Your task to perform on an android device: change alarm snooze length Image 0: 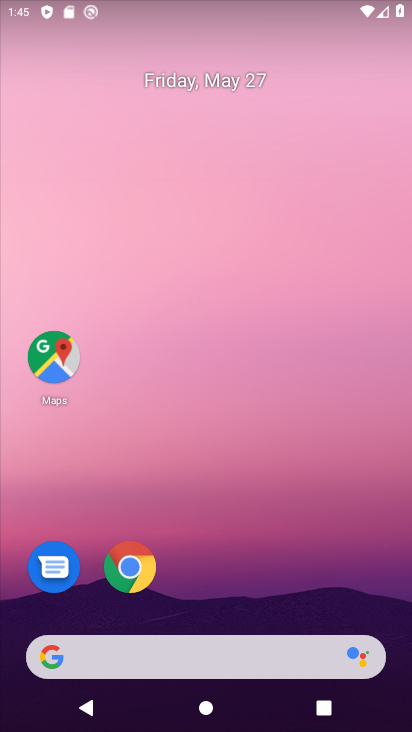
Step 0: drag from (226, 607) to (193, 92)
Your task to perform on an android device: change alarm snooze length Image 1: 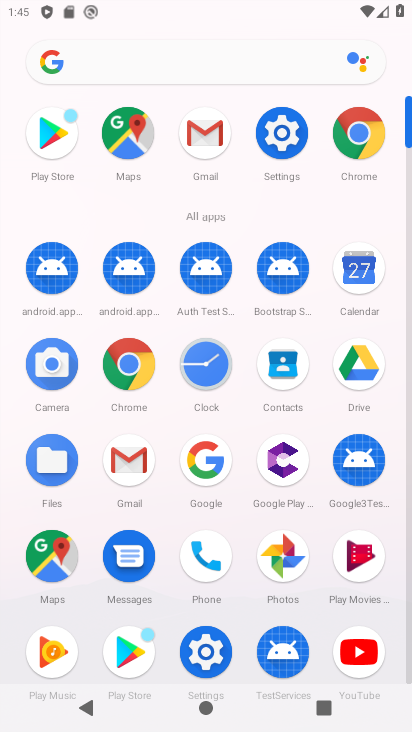
Step 1: click (215, 351)
Your task to perform on an android device: change alarm snooze length Image 2: 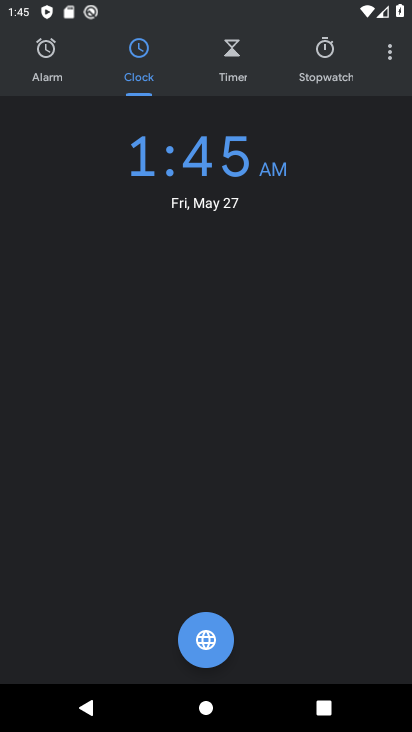
Step 2: click (391, 58)
Your task to perform on an android device: change alarm snooze length Image 3: 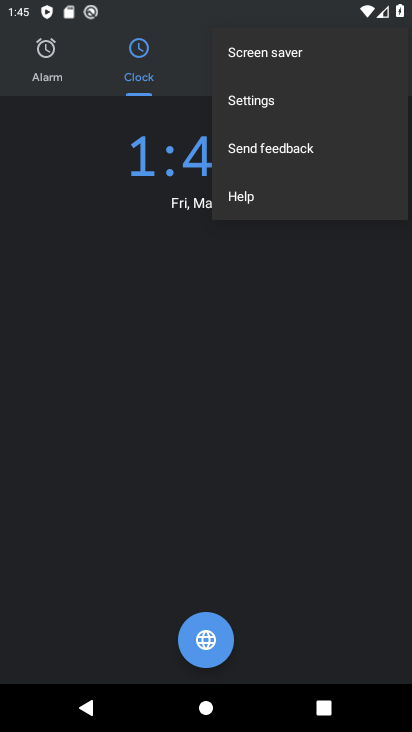
Step 3: click (344, 108)
Your task to perform on an android device: change alarm snooze length Image 4: 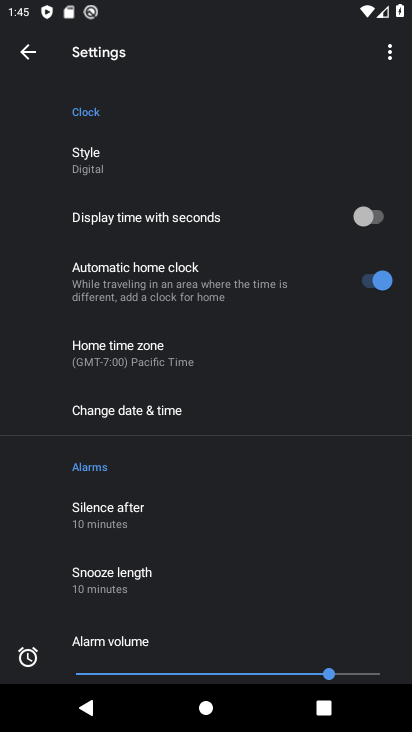
Step 4: click (216, 565)
Your task to perform on an android device: change alarm snooze length Image 5: 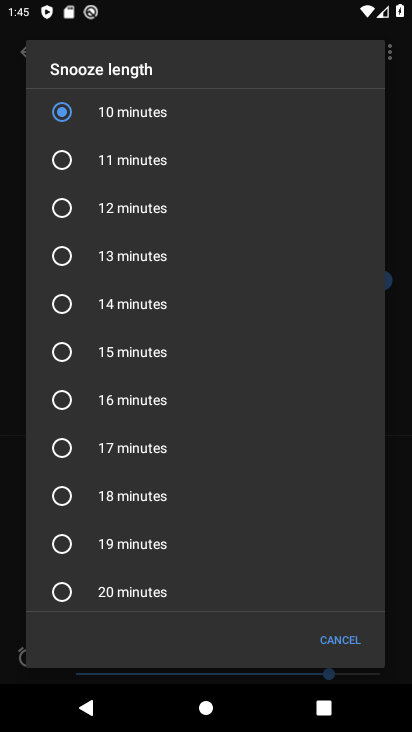
Step 5: click (165, 551)
Your task to perform on an android device: change alarm snooze length Image 6: 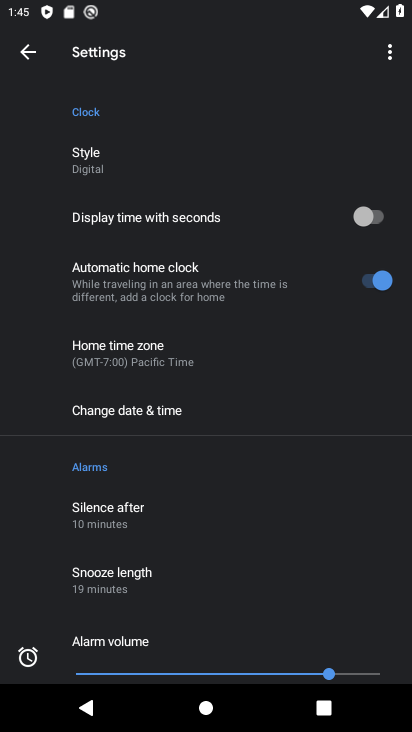
Step 6: task complete